Your task to perform on an android device: remove spam from my inbox in the gmail app Image 0: 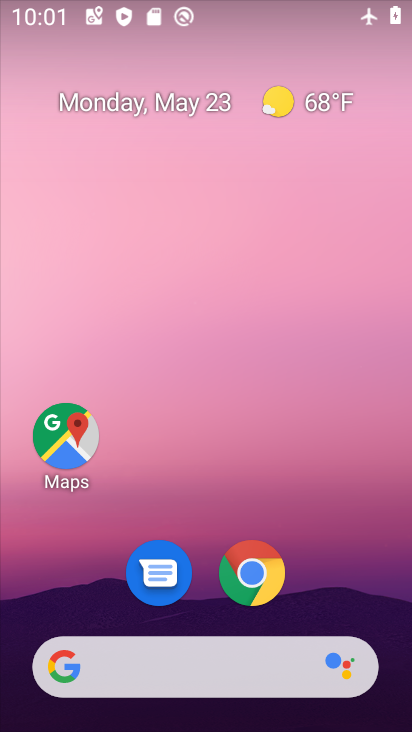
Step 0: drag from (318, 623) to (323, 113)
Your task to perform on an android device: remove spam from my inbox in the gmail app Image 1: 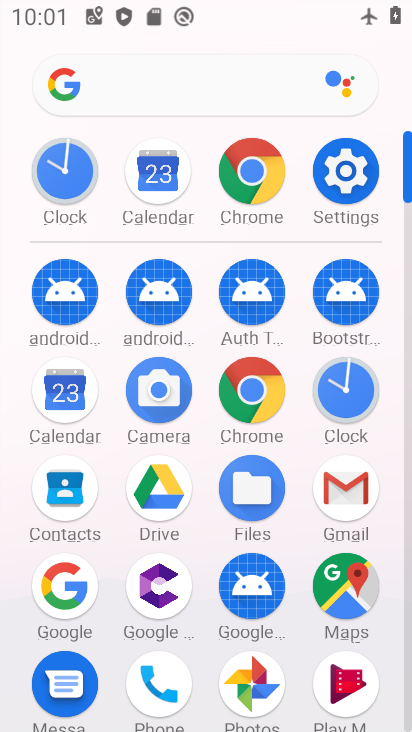
Step 1: click (347, 487)
Your task to perform on an android device: remove spam from my inbox in the gmail app Image 2: 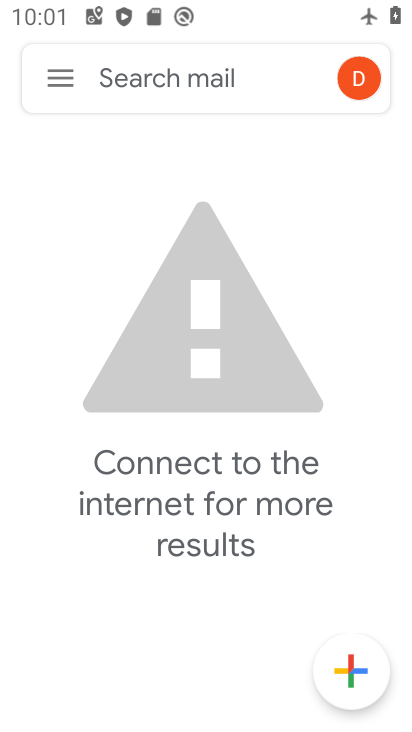
Step 2: click (68, 76)
Your task to perform on an android device: remove spam from my inbox in the gmail app Image 3: 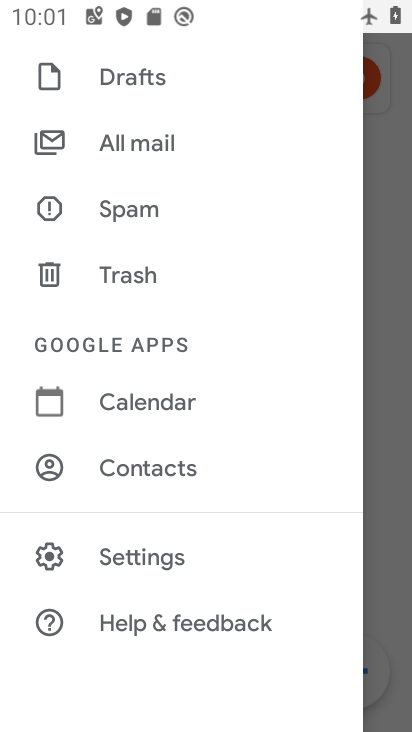
Step 3: drag from (171, 330) to (163, 479)
Your task to perform on an android device: remove spam from my inbox in the gmail app Image 4: 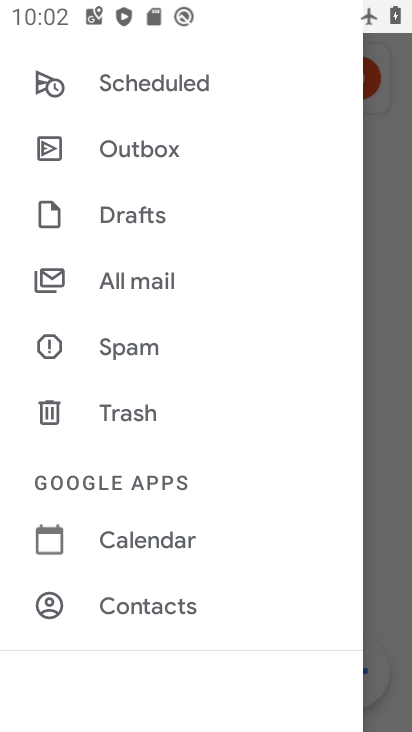
Step 4: click (149, 415)
Your task to perform on an android device: remove spam from my inbox in the gmail app Image 5: 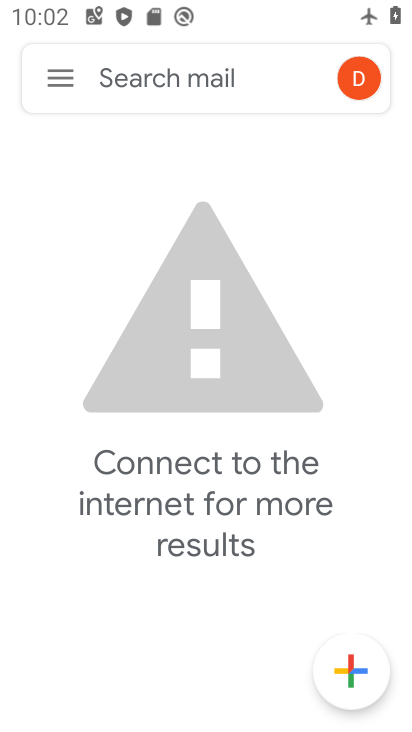
Step 5: task complete